Your task to perform on an android device: open a bookmark in the chrome app Image 0: 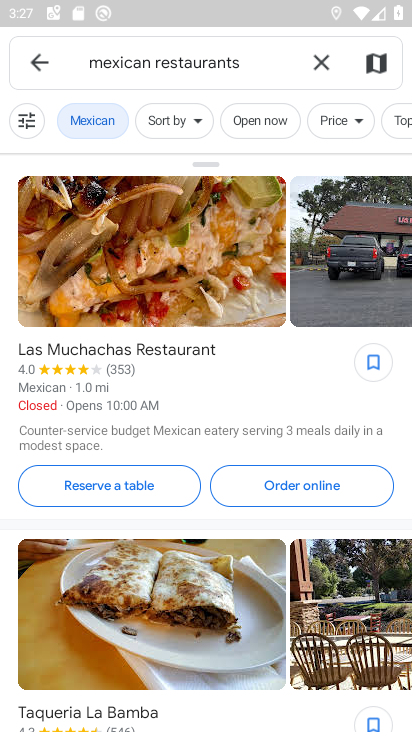
Step 0: press home button
Your task to perform on an android device: open a bookmark in the chrome app Image 1: 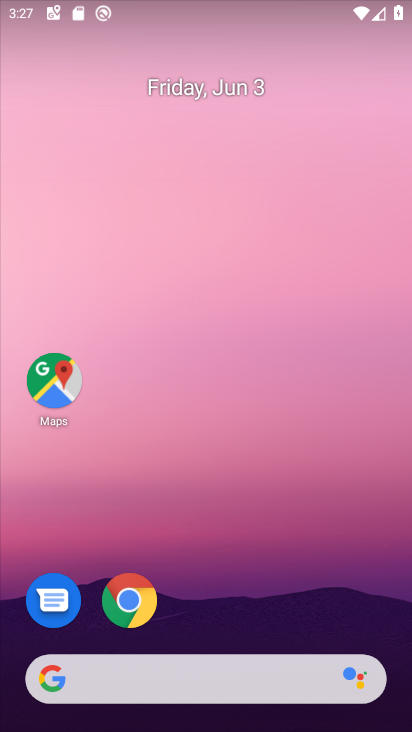
Step 1: click (129, 599)
Your task to perform on an android device: open a bookmark in the chrome app Image 2: 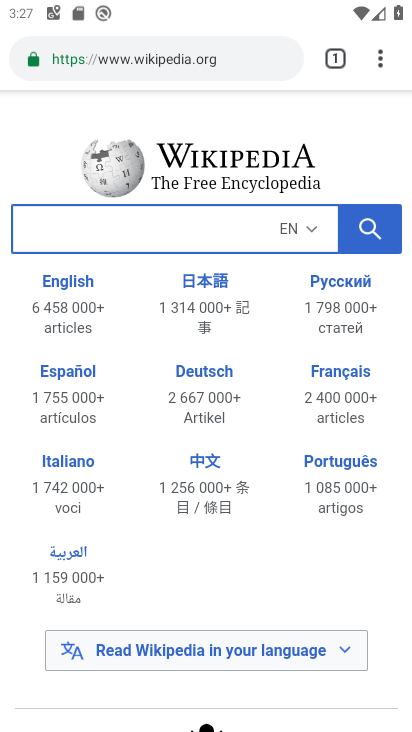
Step 2: task complete